Your task to perform on an android device: open a new tab in the chrome app Image 0: 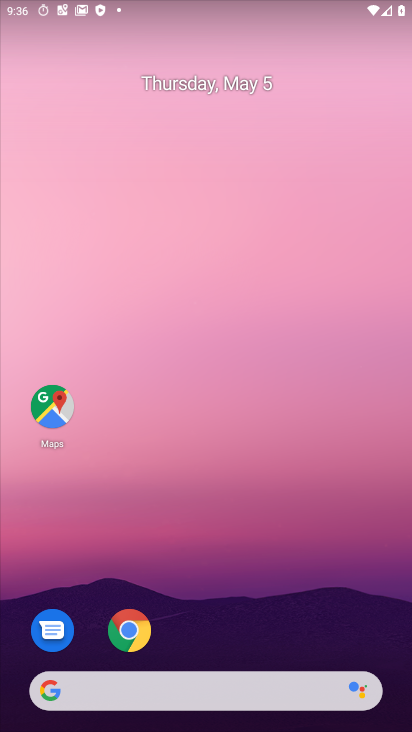
Step 0: click (131, 641)
Your task to perform on an android device: open a new tab in the chrome app Image 1: 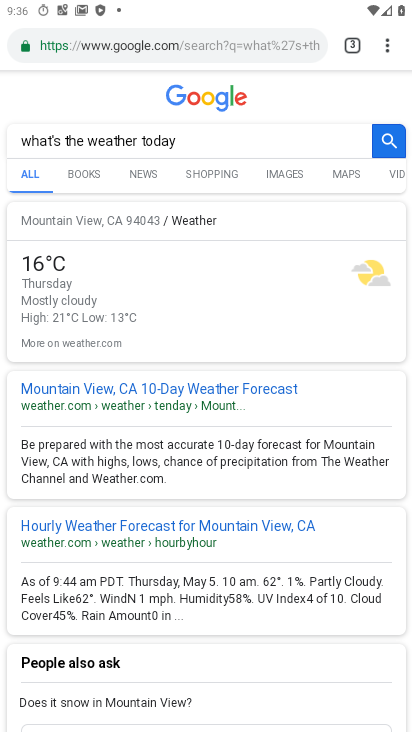
Step 1: task complete